Your task to perform on an android device: Search for the new Apple Watch on Best Buy Image 0: 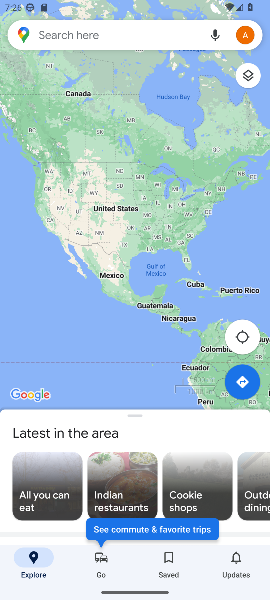
Step 0: press home button
Your task to perform on an android device: Search for the new Apple Watch on Best Buy Image 1: 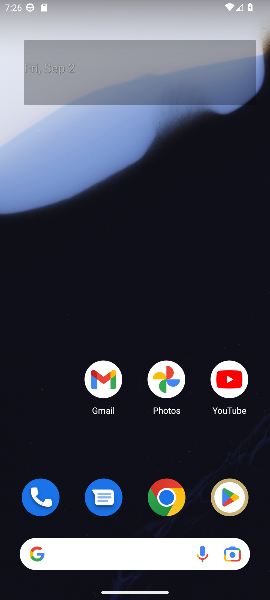
Step 1: drag from (151, 513) to (151, 47)
Your task to perform on an android device: Search for the new Apple Watch on Best Buy Image 2: 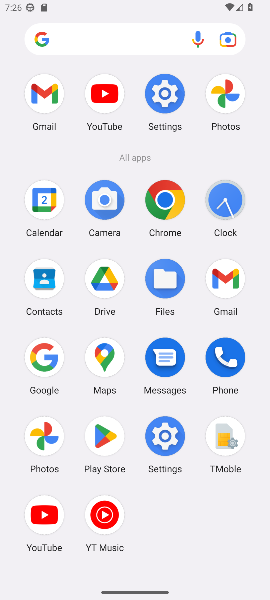
Step 2: click (52, 359)
Your task to perform on an android device: Search for the new Apple Watch on Best Buy Image 3: 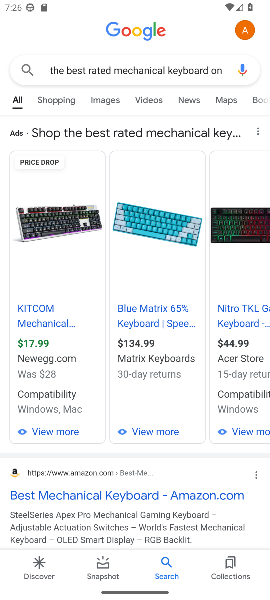
Step 3: click (225, 67)
Your task to perform on an android device: Search for the new Apple Watch on Best Buy Image 4: 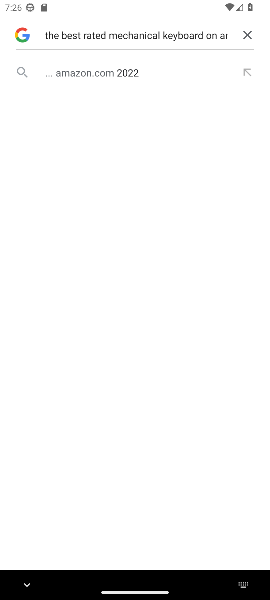
Step 4: click (246, 38)
Your task to perform on an android device: Search for the new Apple Watch on Best Buy Image 5: 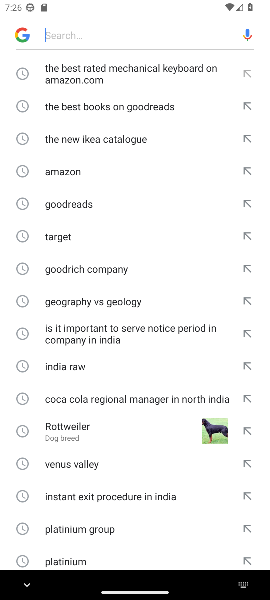
Step 5: type "the new Apple Watch on Best Buy"
Your task to perform on an android device: Search for the new Apple Watch on Best Buy Image 6: 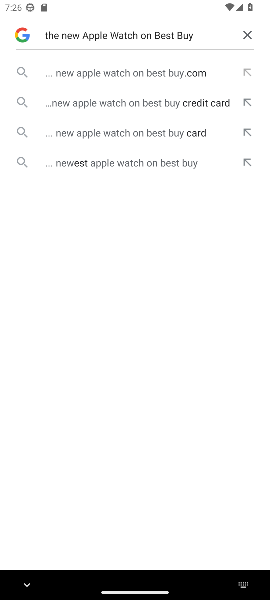
Step 6: click (139, 77)
Your task to perform on an android device: Search for the new Apple Watch on Best Buy Image 7: 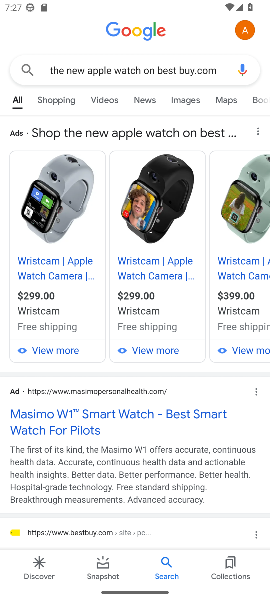
Step 7: task complete